Your task to perform on an android device: change notifications settings Image 0: 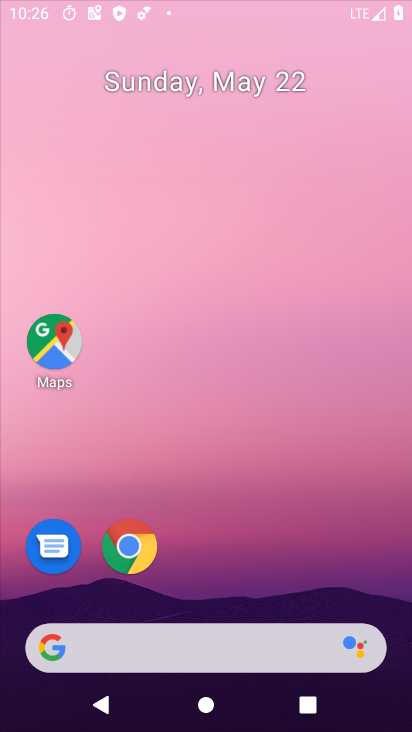
Step 0: click (209, 276)
Your task to perform on an android device: change notifications settings Image 1: 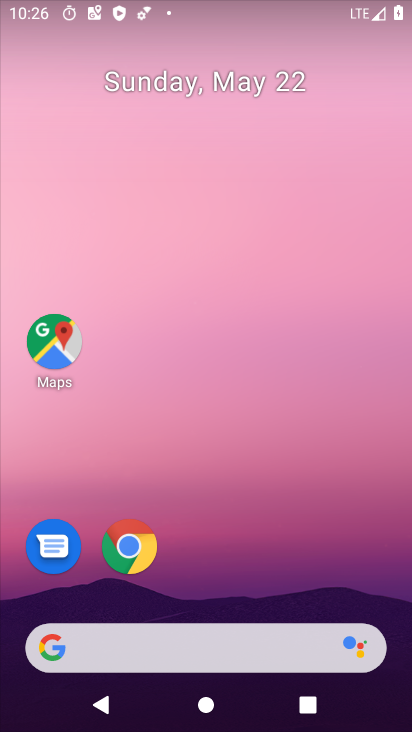
Step 1: drag from (205, 634) to (312, 30)
Your task to perform on an android device: change notifications settings Image 2: 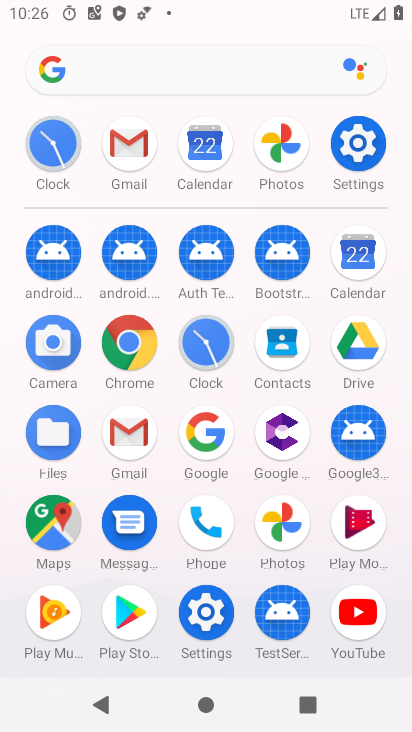
Step 2: click (357, 135)
Your task to perform on an android device: change notifications settings Image 3: 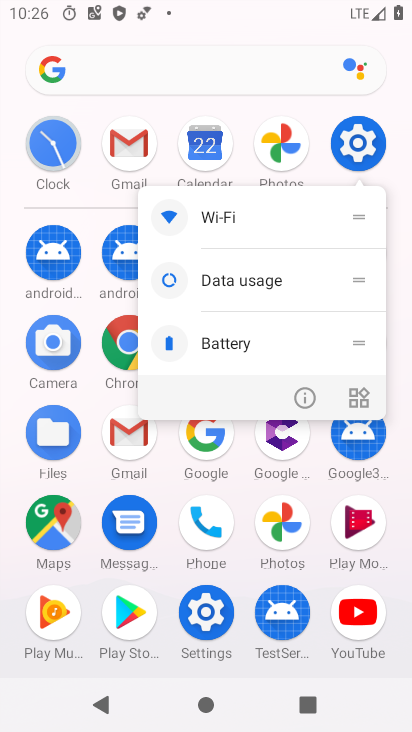
Step 3: click (311, 418)
Your task to perform on an android device: change notifications settings Image 4: 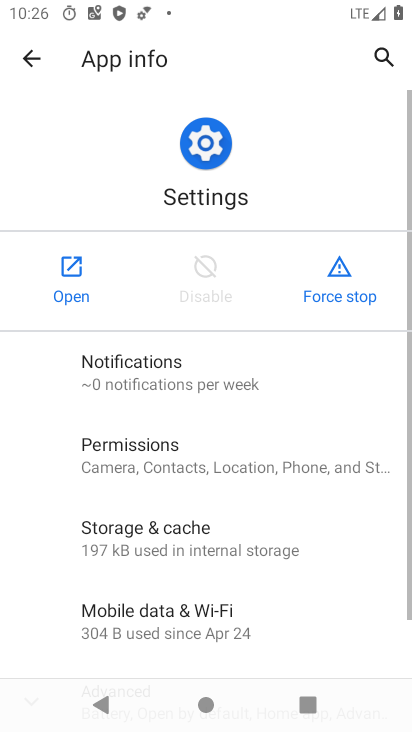
Step 4: click (68, 301)
Your task to perform on an android device: change notifications settings Image 5: 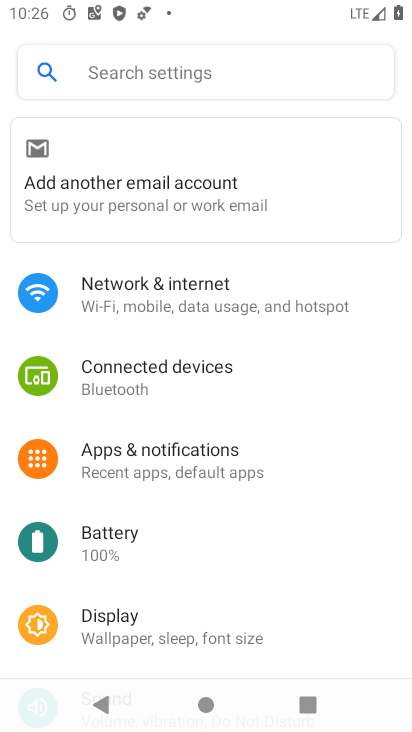
Step 5: click (185, 454)
Your task to perform on an android device: change notifications settings Image 6: 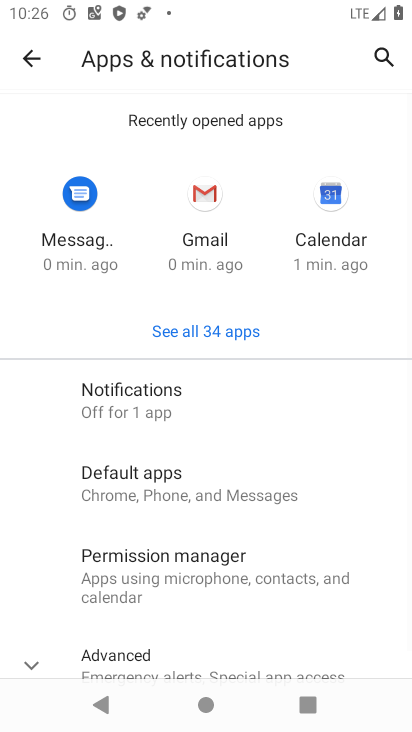
Step 6: click (199, 413)
Your task to perform on an android device: change notifications settings Image 7: 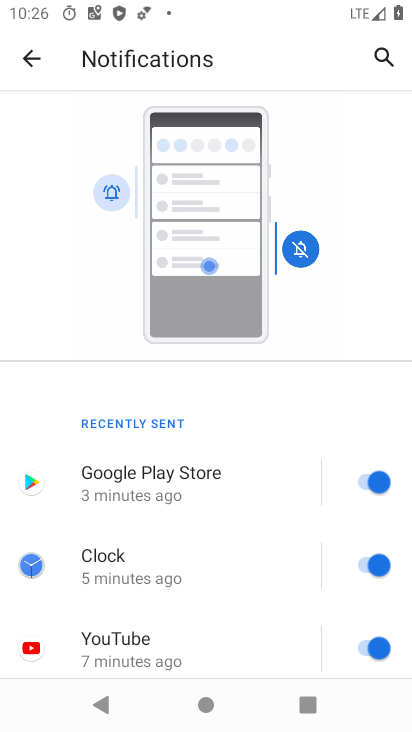
Step 7: drag from (191, 649) to (337, 88)
Your task to perform on an android device: change notifications settings Image 8: 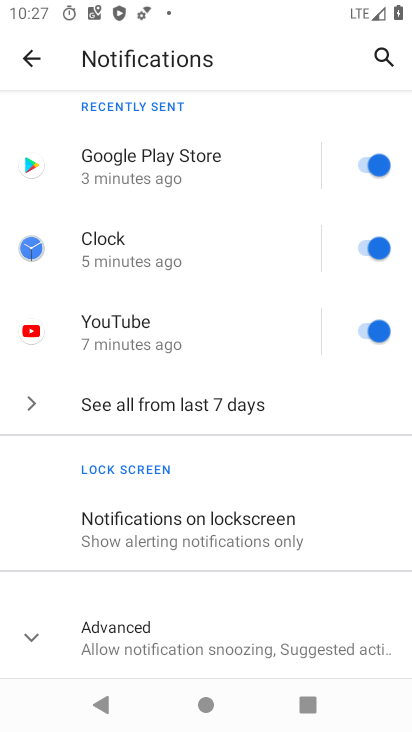
Step 8: drag from (157, 651) to (331, 288)
Your task to perform on an android device: change notifications settings Image 9: 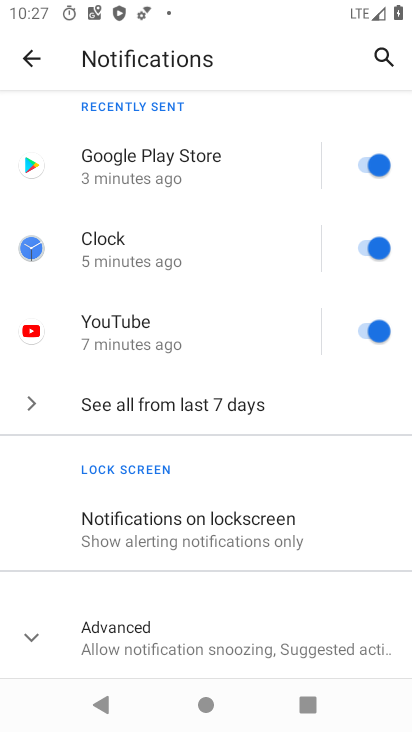
Step 9: click (157, 646)
Your task to perform on an android device: change notifications settings Image 10: 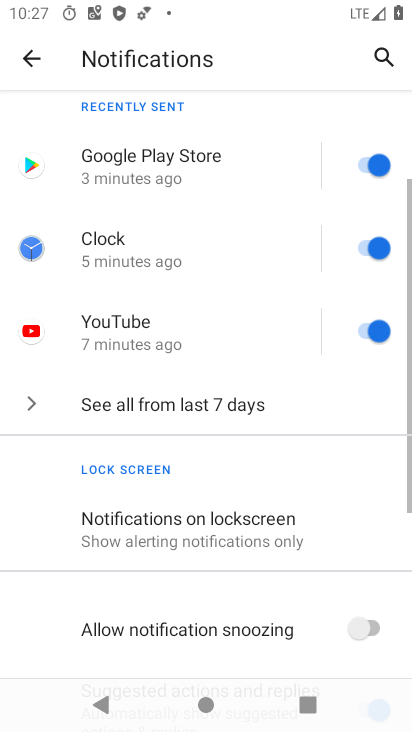
Step 10: drag from (188, 617) to (358, 256)
Your task to perform on an android device: change notifications settings Image 11: 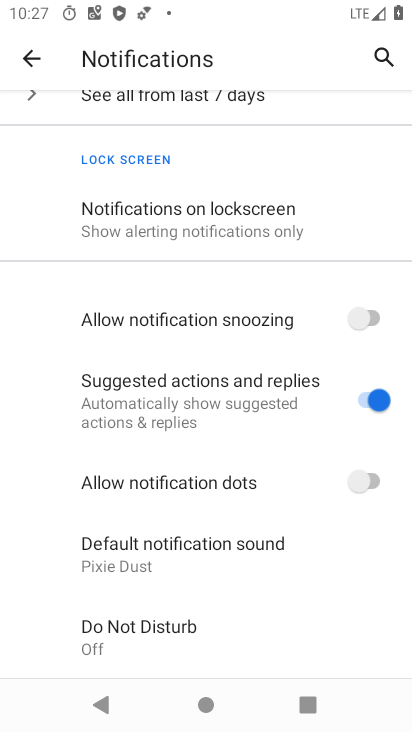
Step 11: drag from (189, 565) to (305, 266)
Your task to perform on an android device: change notifications settings Image 12: 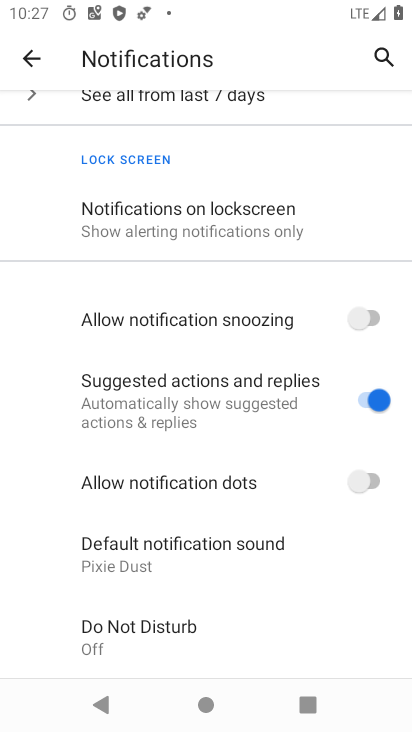
Step 12: drag from (169, 613) to (319, 321)
Your task to perform on an android device: change notifications settings Image 13: 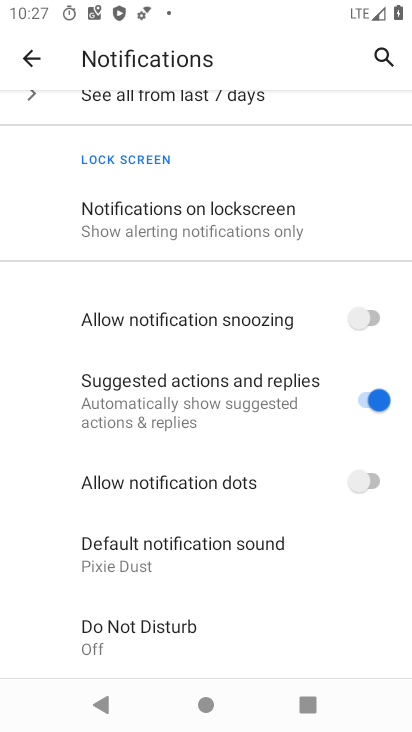
Step 13: drag from (187, 636) to (267, 364)
Your task to perform on an android device: change notifications settings Image 14: 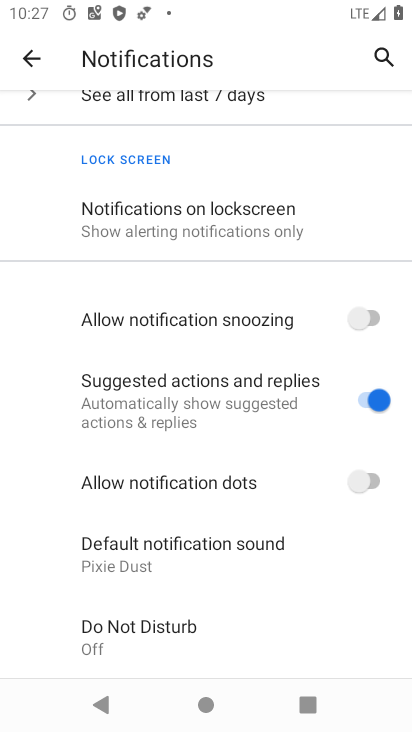
Step 14: drag from (268, 171) to (271, 704)
Your task to perform on an android device: change notifications settings Image 15: 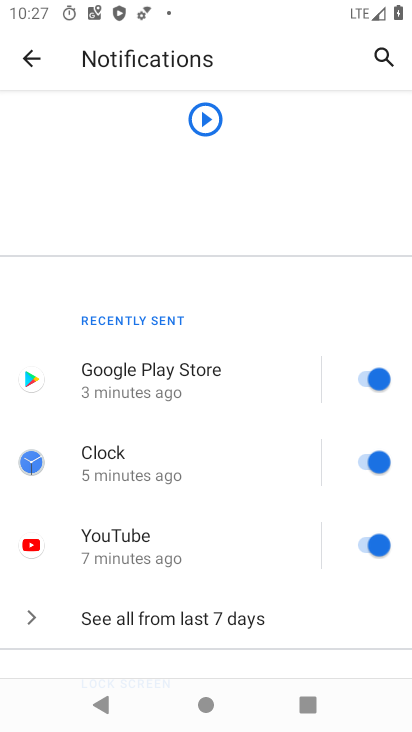
Step 15: drag from (196, 490) to (338, 90)
Your task to perform on an android device: change notifications settings Image 16: 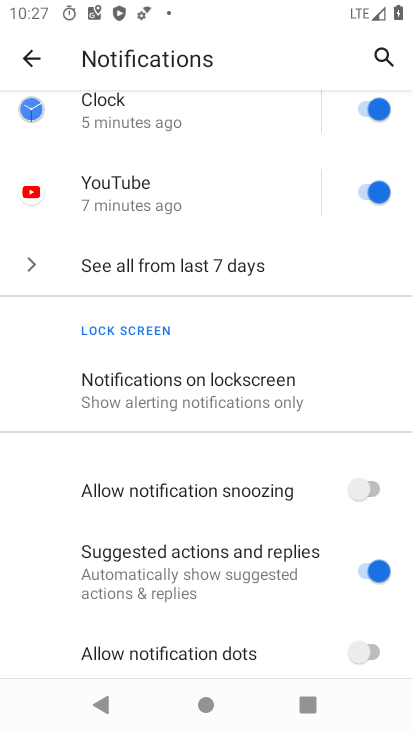
Step 16: drag from (193, 478) to (293, 201)
Your task to perform on an android device: change notifications settings Image 17: 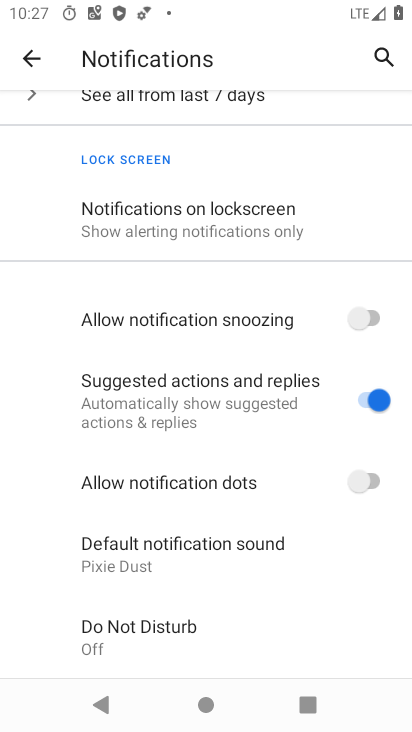
Step 17: drag from (286, 194) to (246, 551)
Your task to perform on an android device: change notifications settings Image 18: 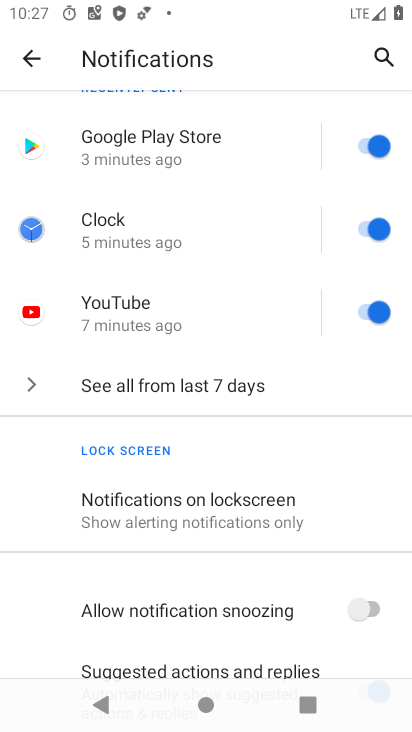
Step 18: drag from (210, 589) to (294, 281)
Your task to perform on an android device: change notifications settings Image 19: 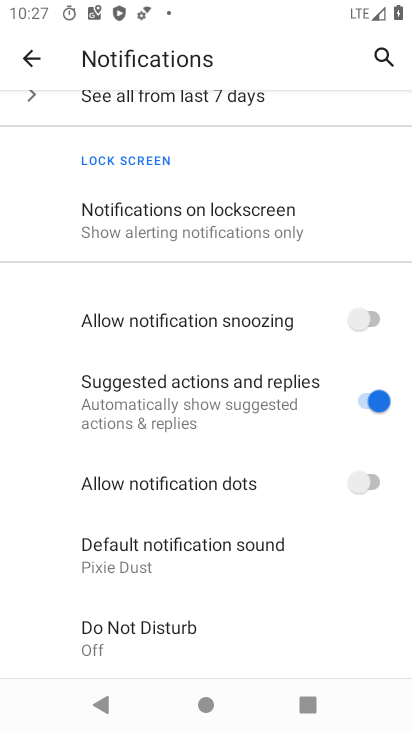
Step 19: drag from (281, 286) to (236, 708)
Your task to perform on an android device: change notifications settings Image 20: 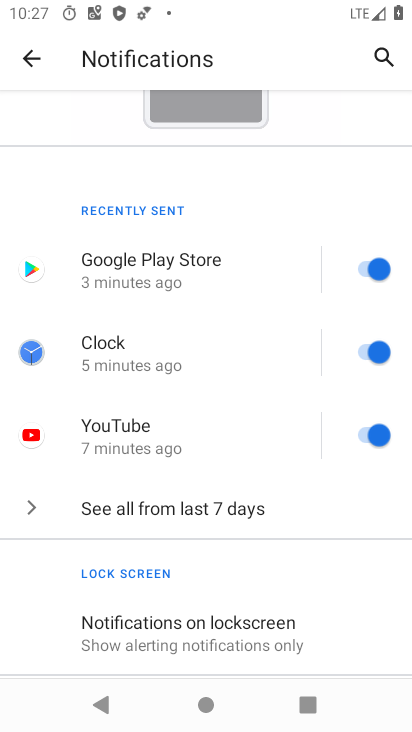
Step 20: drag from (270, 592) to (372, 246)
Your task to perform on an android device: change notifications settings Image 21: 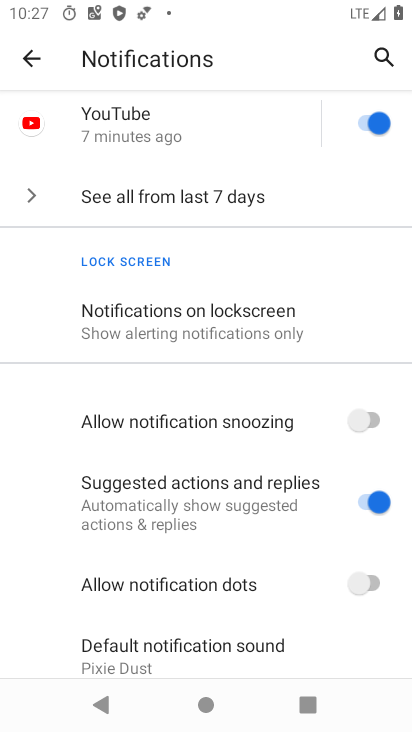
Step 21: drag from (100, 590) to (259, 16)
Your task to perform on an android device: change notifications settings Image 22: 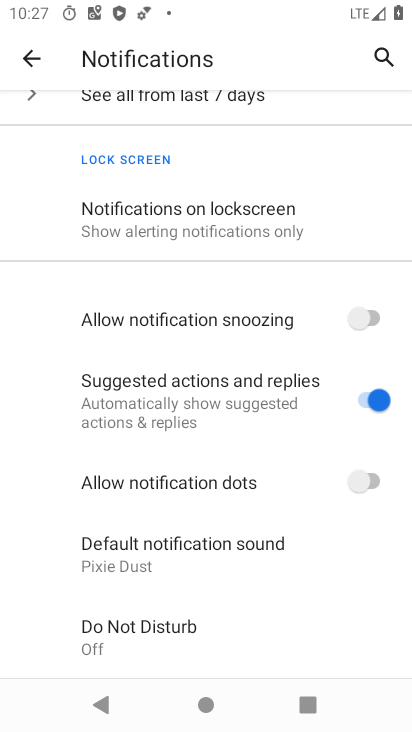
Step 22: drag from (175, 182) to (227, 529)
Your task to perform on an android device: change notifications settings Image 23: 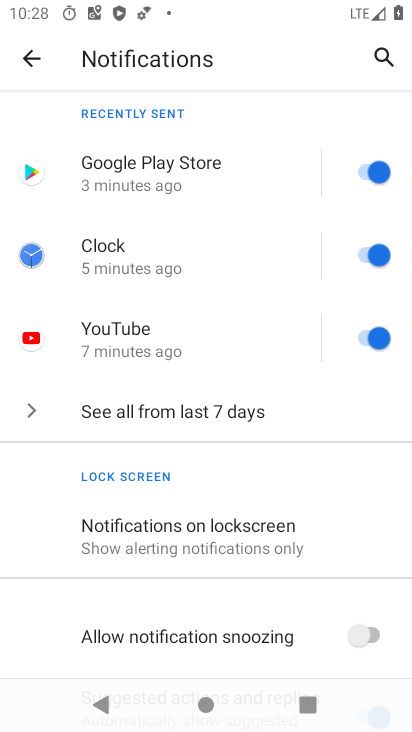
Step 23: drag from (187, 207) to (235, 562)
Your task to perform on an android device: change notifications settings Image 24: 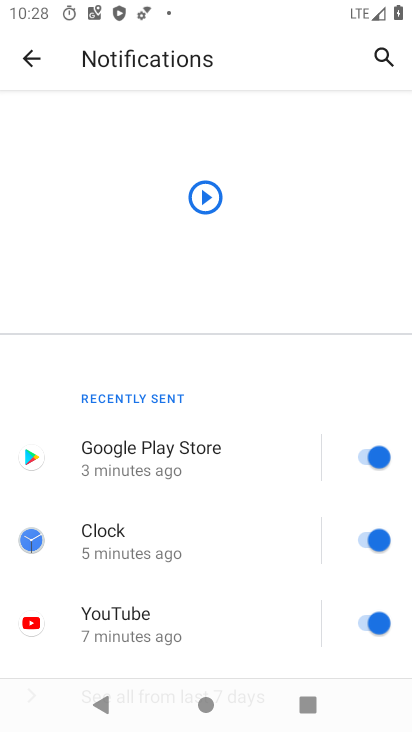
Step 24: drag from (171, 604) to (296, 136)
Your task to perform on an android device: change notifications settings Image 25: 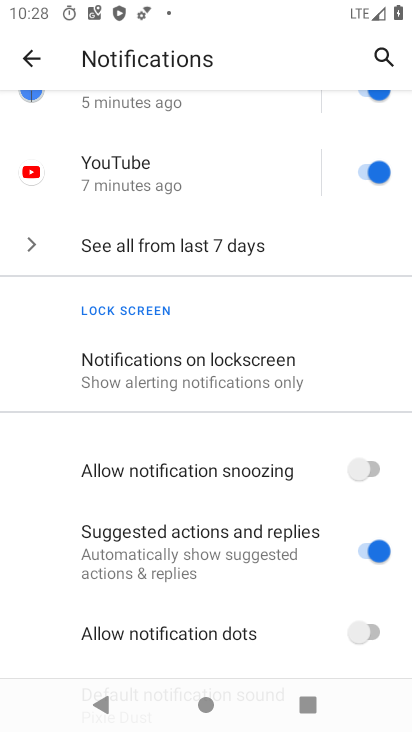
Step 25: drag from (233, 572) to (320, 121)
Your task to perform on an android device: change notifications settings Image 26: 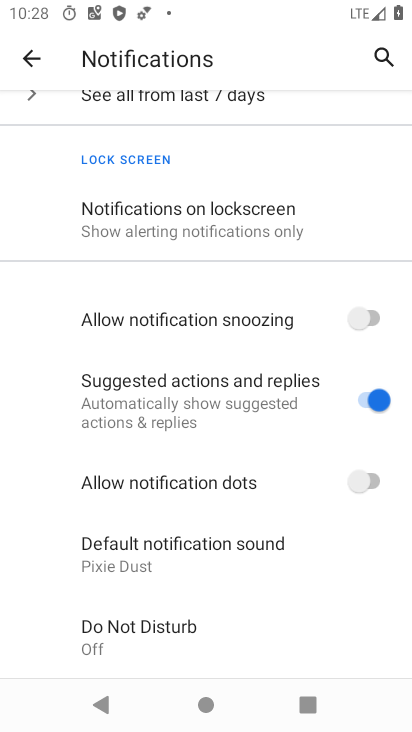
Step 26: click (357, 324)
Your task to perform on an android device: change notifications settings Image 27: 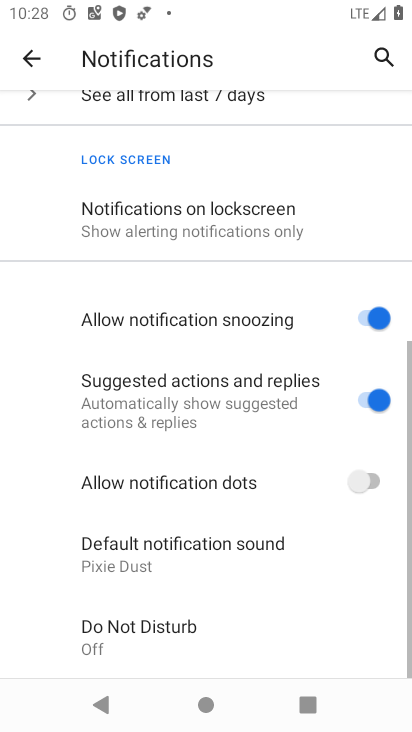
Step 27: task complete